Your task to perform on an android device: change timer sound Image 0: 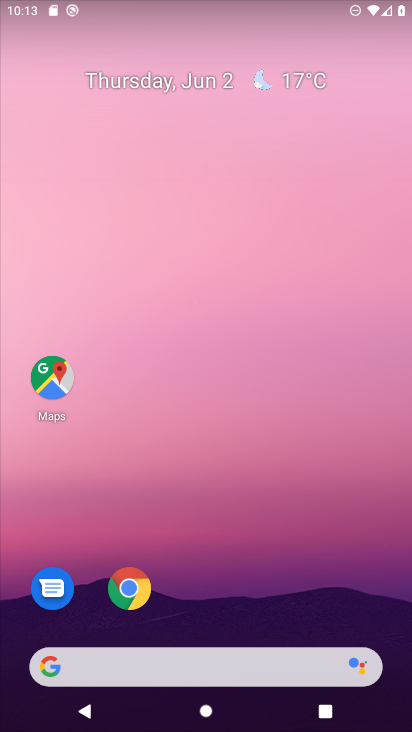
Step 0: drag from (231, 485) to (233, 309)
Your task to perform on an android device: change timer sound Image 1: 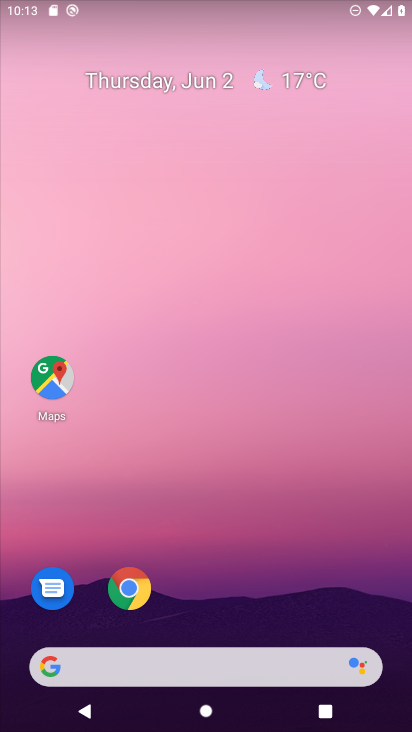
Step 1: drag from (208, 668) to (244, 193)
Your task to perform on an android device: change timer sound Image 2: 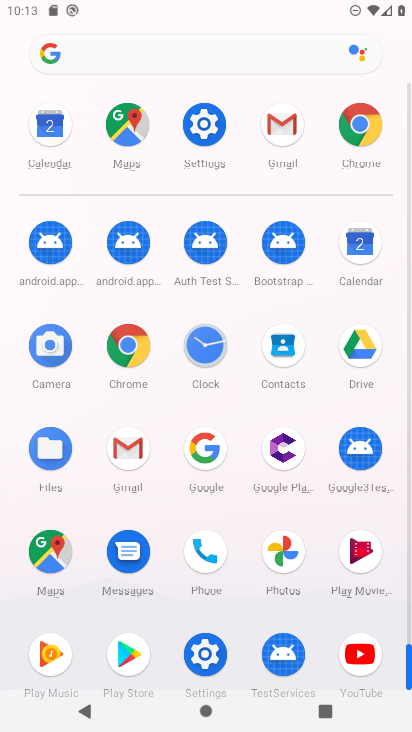
Step 2: click (209, 361)
Your task to perform on an android device: change timer sound Image 3: 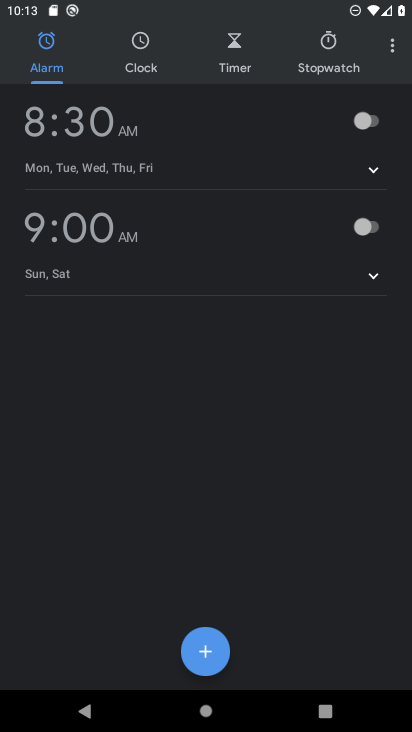
Step 3: click (397, 58)
Your task to perform on an android device: change timer sound Image 4: 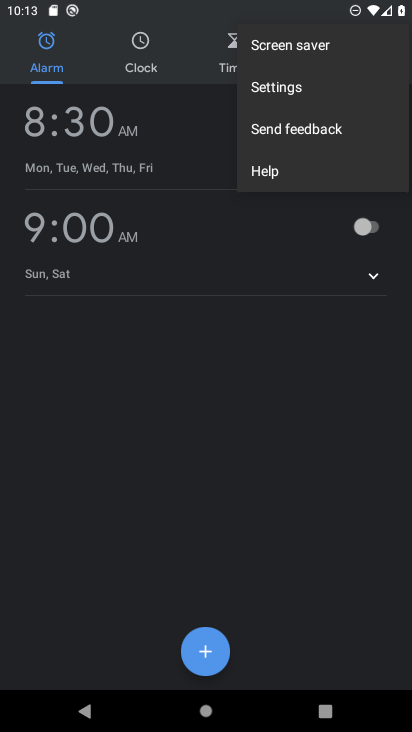
Step 4: click (308, 82)
Your task to perform on an android device: change timer sound Image 5: 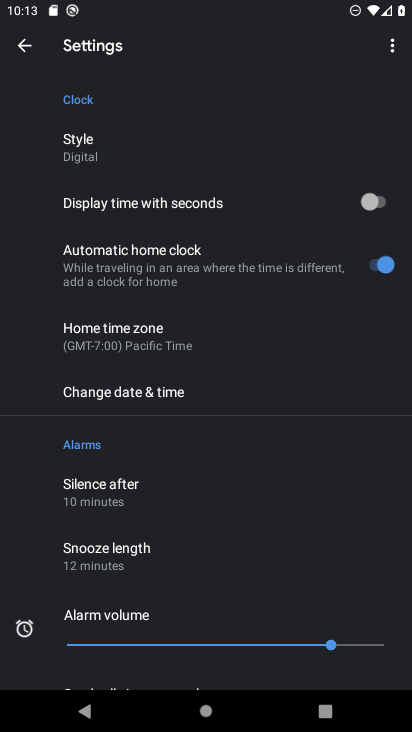
Step 5: drag from (207, 521) to (232, 391)
Your task to perform on an android device: change timer sound Image 6: 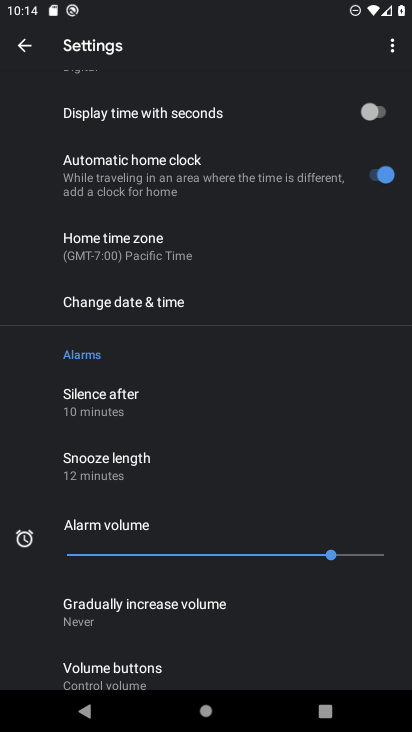
Step 6: drag from (169, 527) to (202, 341)
Your task to perform on an android device: change timer sound Image 7: 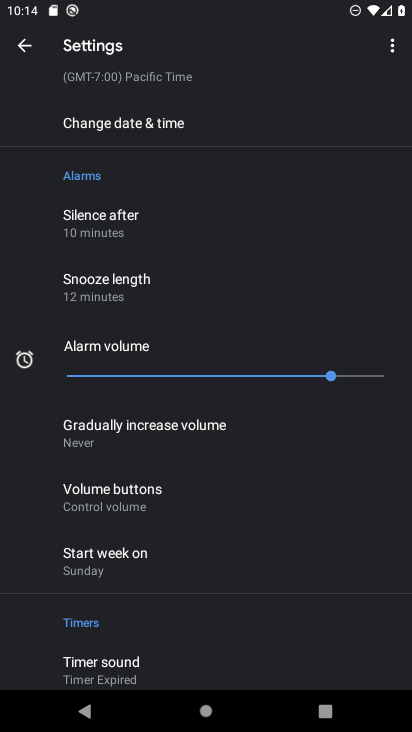
Step 7: click (146, 661)
Your task to perform on an android device: change timer sound Image 8: 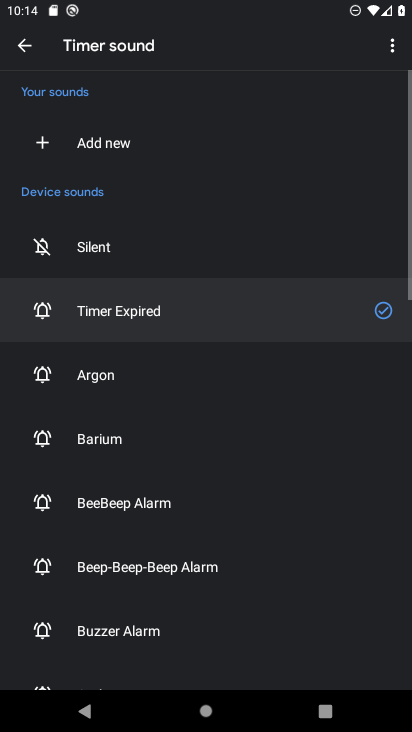
Step 8: click (136, 382)
Your task to perform on an android device: change timer sound Image 9: 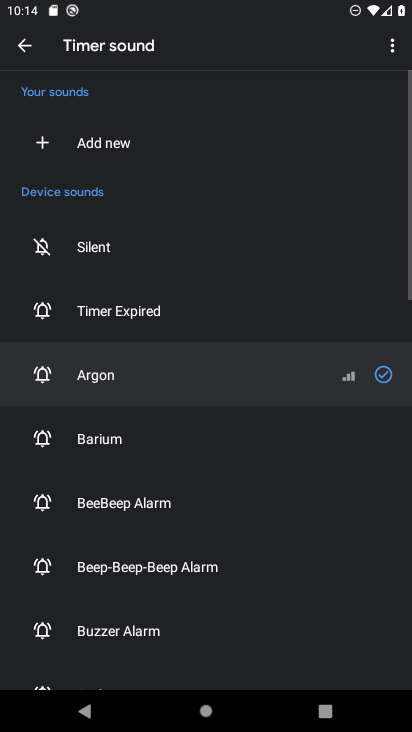
Step 9: task complete